Your task to perform on an android device: Open Android settings Image 0: 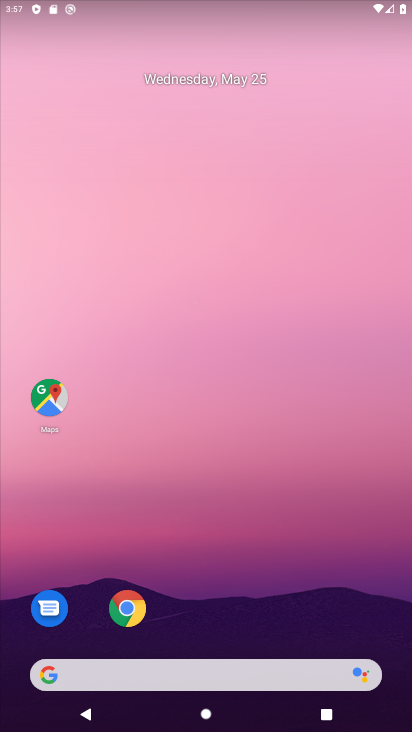
Step 0: drag from (250, 610) to (224, 133)
Your task to perform on an android device: Open Android settings Image 1: 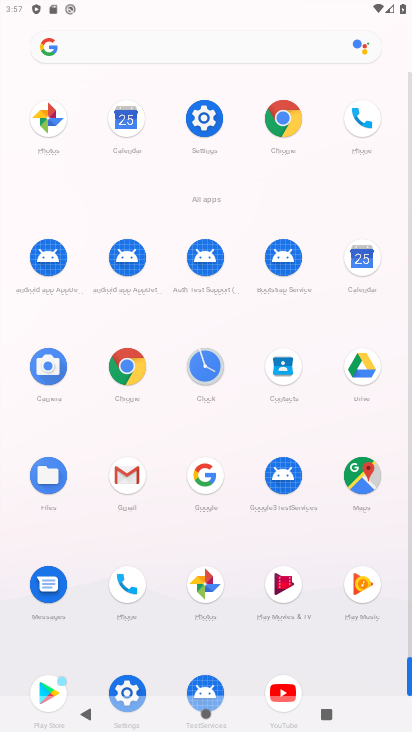
Step 1: drag from (162, 641) to (167, 412)
Your task to perform on an android device: Open Android settings Image 2: 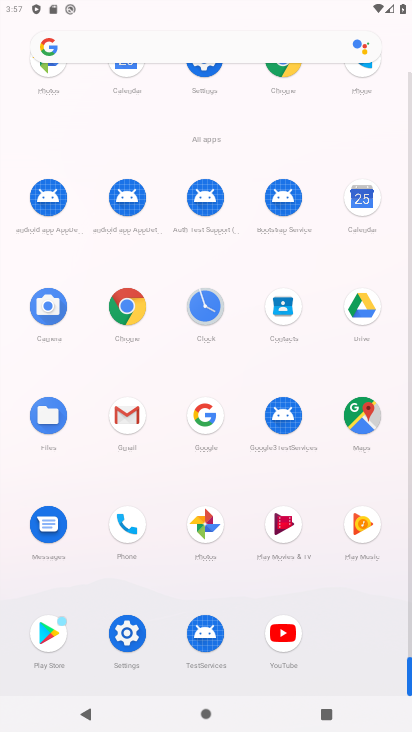
Step 2: click (127, 630)
Your task to perform on an android device: Open Android settings Image 3: 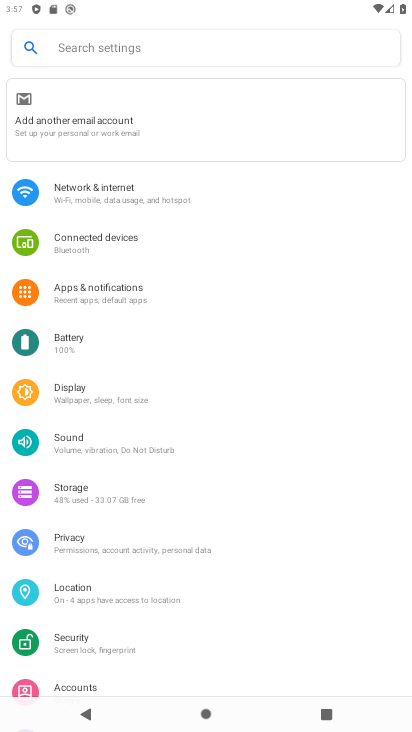
Step 3: task complete